Your task to perform on an android device: open sync settings in chrome Image 0: 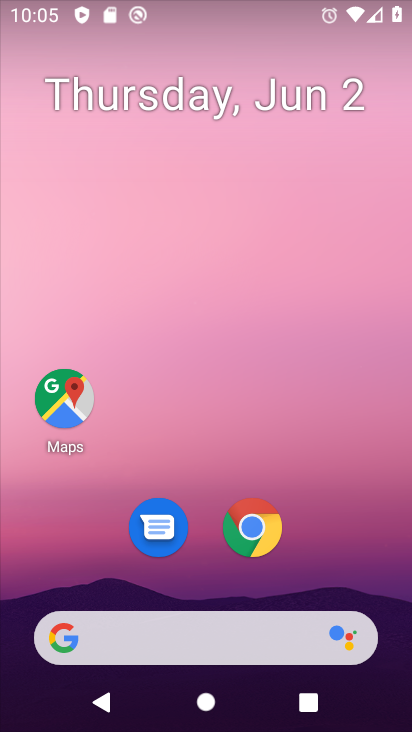
Step 0: click (257, 540)
Your task to perform on an android device: open sync settings in chrome Image 1: 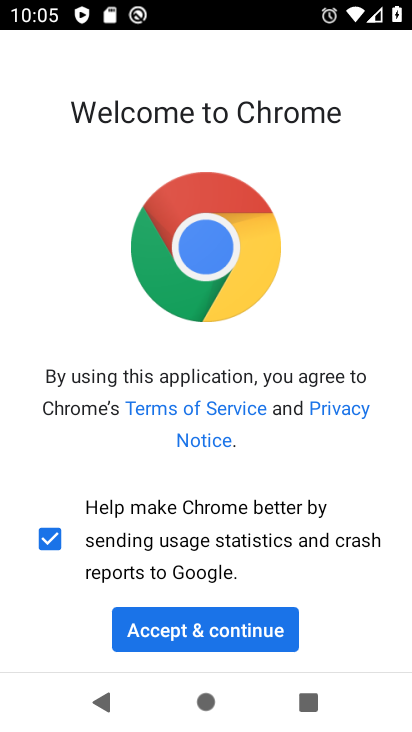
Step 1: click (254, 631)
Your task to perform on an android device: open sync settings in chrome Image 2: 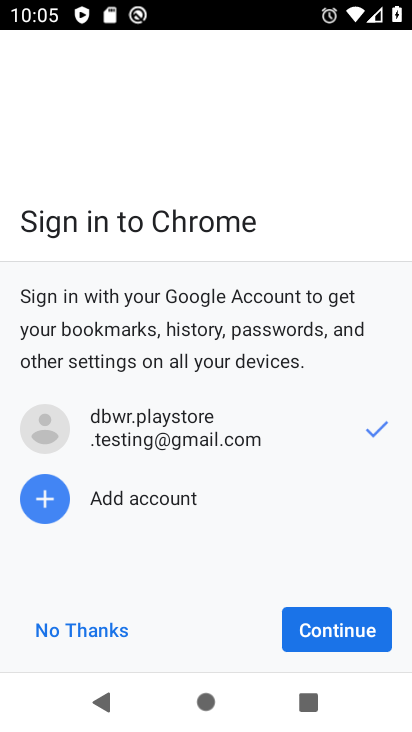
Step 2: click (337, 626)
Your task to perform on an android device: open sync settings in chrome Image 3: 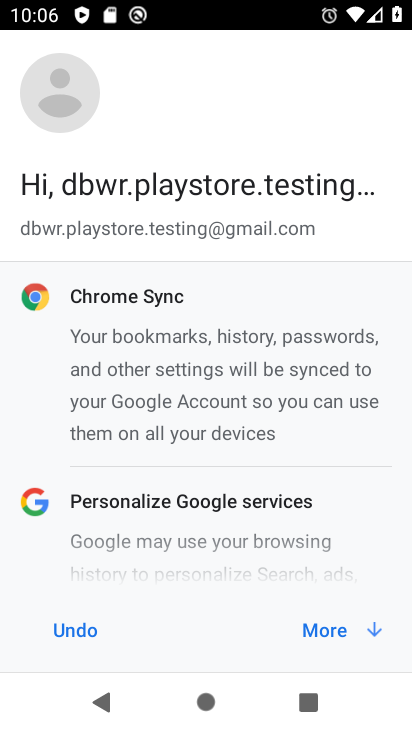
Step 3: press home button
Your task to perform on an android device: open sync settings in chrome Image 4: 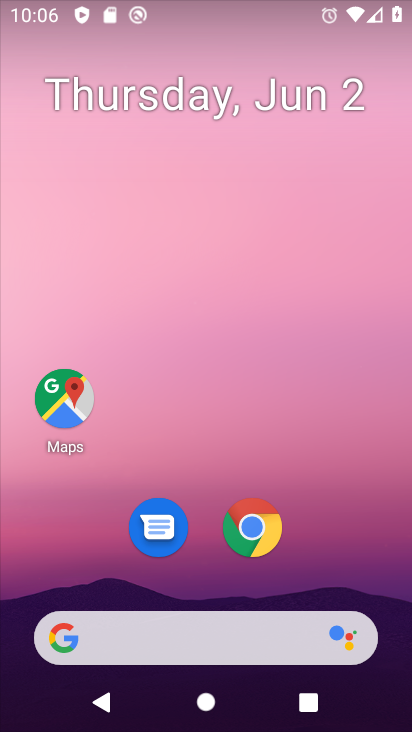
Step 4: click (248, 522)
Your task to perform on an android device: open sync settings in chrome Image 5: 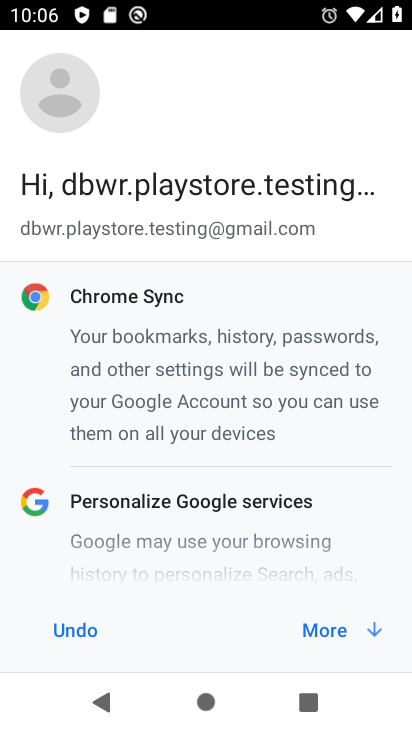
Step 5: click (342, 631)
Your task to perform on an android device: open sync settings in chrome Image 6: 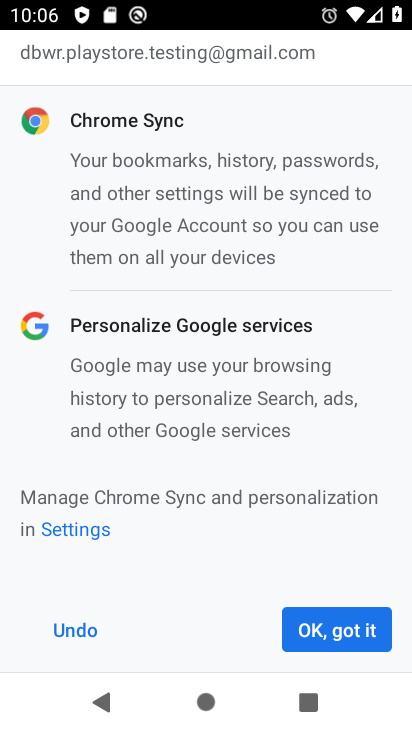
Step 6: click (342, 631)
Your task to perform on an android device: open sync settings in chrome Image 7: 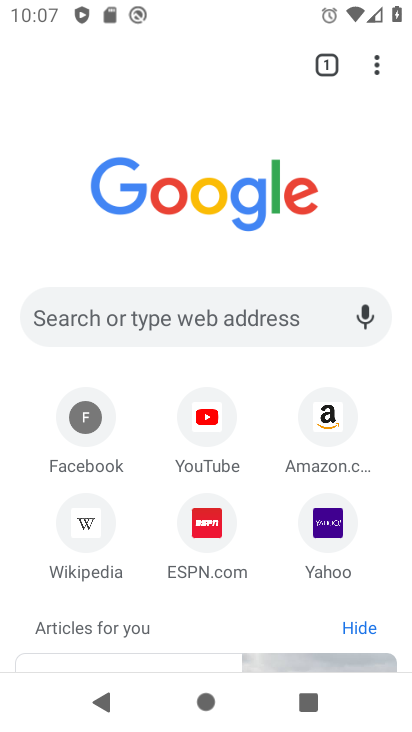
Step 7: drag from (379, 67) to (225, 535)
Your task to perform on an android device: open sync settings in chrome Image 8: 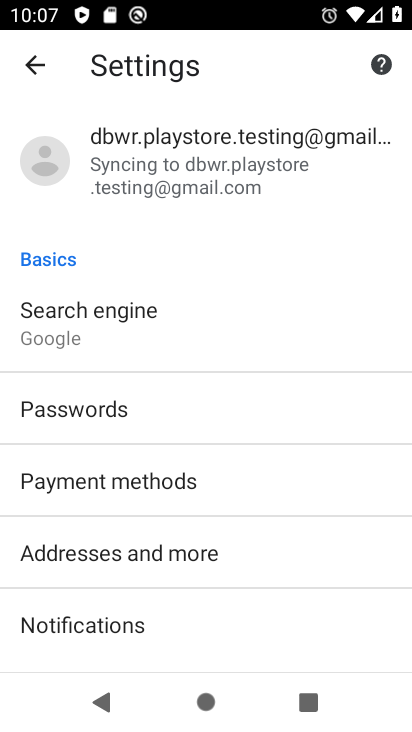
Step 8: click (181, 143)
Your task to perform on an android device: open sync settings in chrome Image 9: 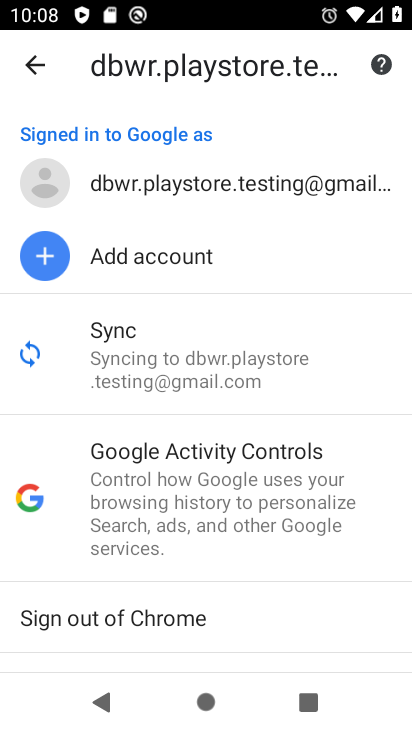
Step 9: task complete